Your task to perform on an android device: Open Google Maps and go to "Timeline" Image 0: 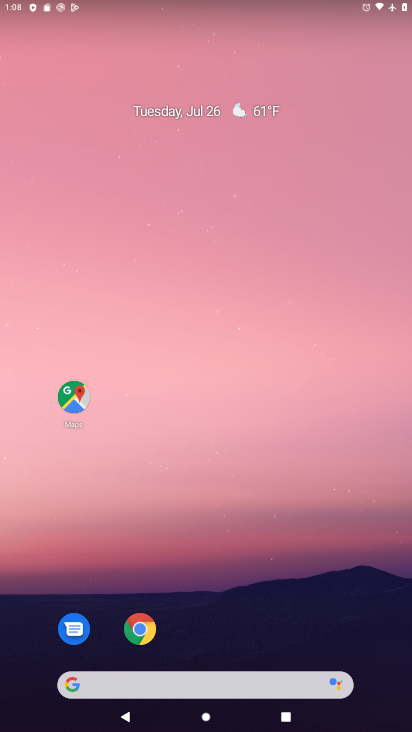
Step 0: drag from (207, 656) to (202, 162)
Your task to perform on an android device: Open Google Maps and go to "Timeline" Image 1: 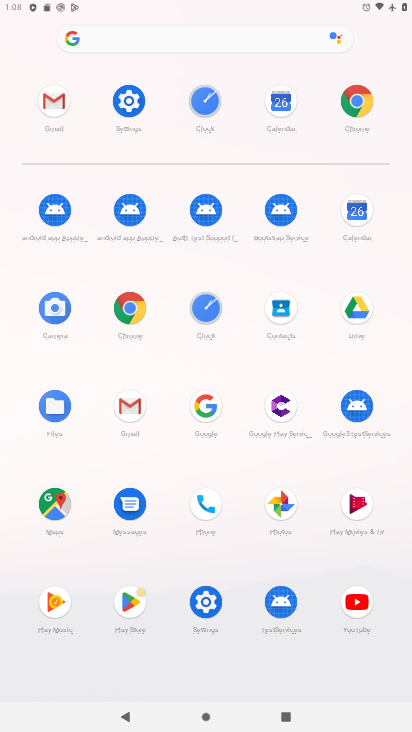
Step 1: click (48, 515)
Your task to perform on an android device: Open Google Maps and go to "Timeline" Image 2: 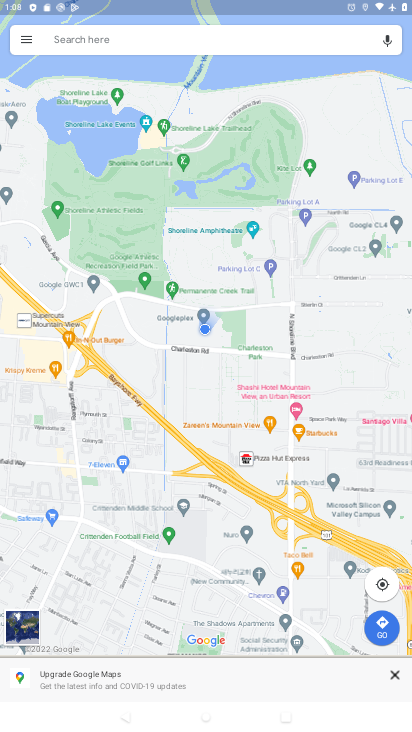
Step 2: click (22, 41)
Your task to perform on an android device: Open Google Maps and go to "Timeline" Image 3: 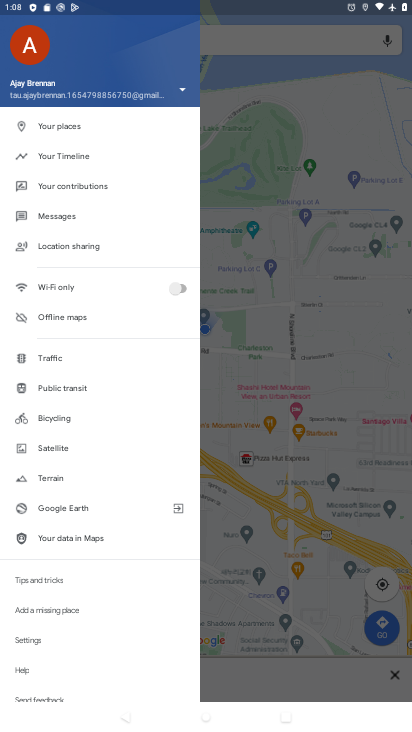
Step 3: click (93, 161)
Your task to perform on an android device: Open Google Maps and go to "Timeline" Image 4: 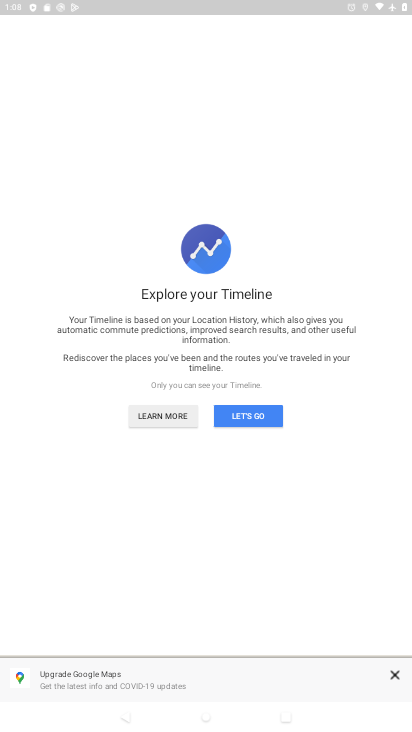
Step 4: click (259, 417)
Your task to perform on an android device: Open Google Maps and go to "Timeline" Image 5: 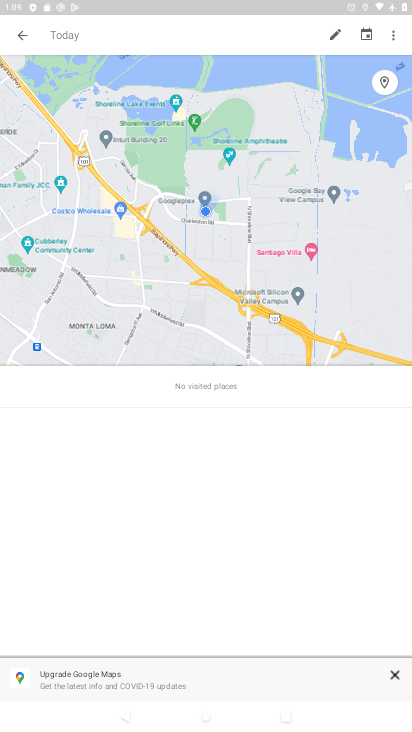
Step 5: task complete